Your task to perform on an android device: open wifi settings Image 0: 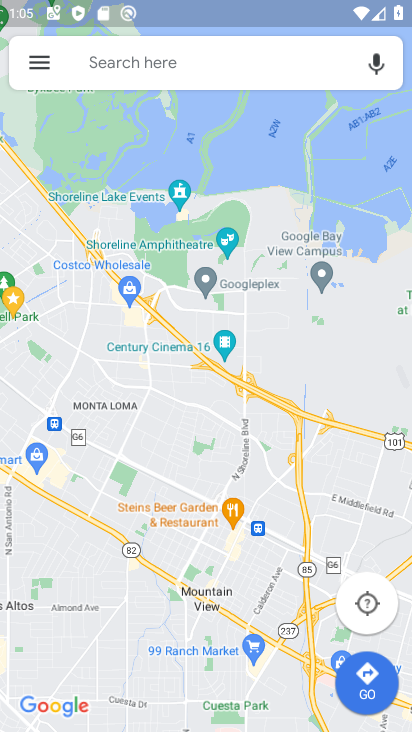
Step 0: press home button
Your task to perform on an android device: open wifi settings Image 1: 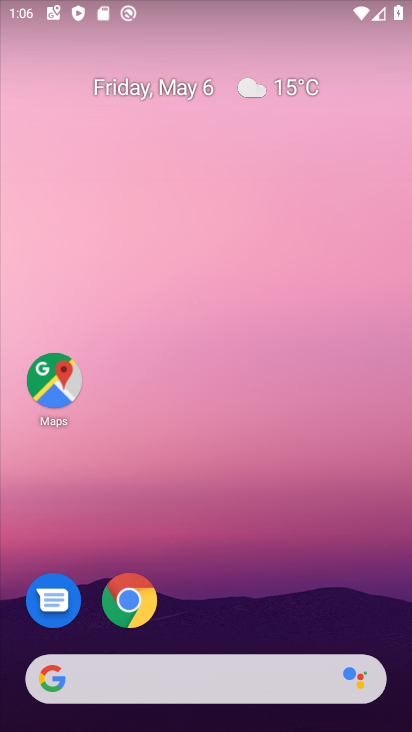
Step 1: drag from (329, 610) to (265, 78)
Your task to perform on an android device: open wifi settings Image 2: 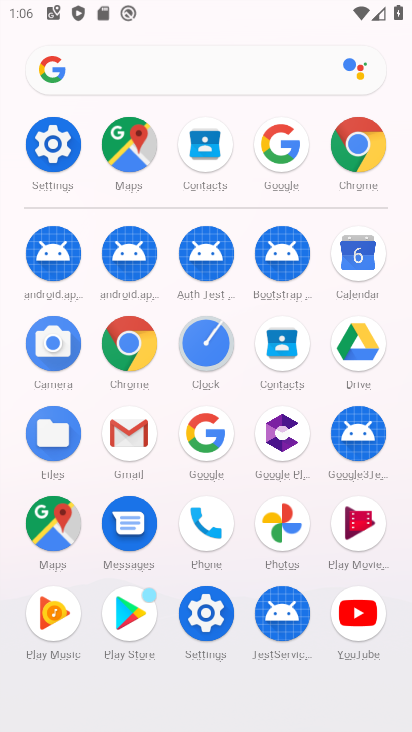
Step 2: click (208, 621)
Your task to perform on an android device: open wifi settings Image 3: 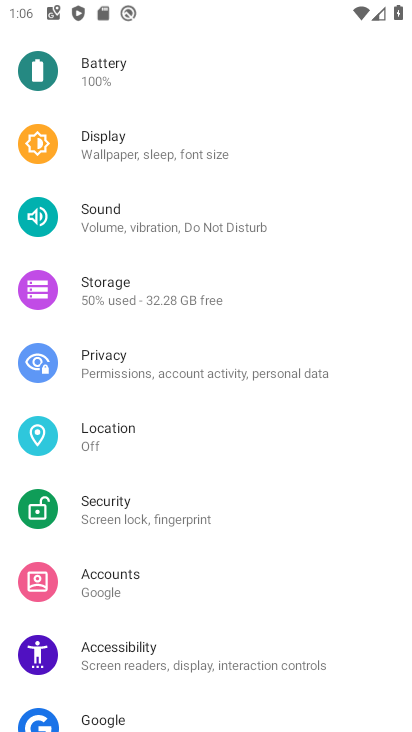
Step 3: drag from (208, 142) to (236, 622)
Your task to perform on an android device: open wifi settings Image 4: 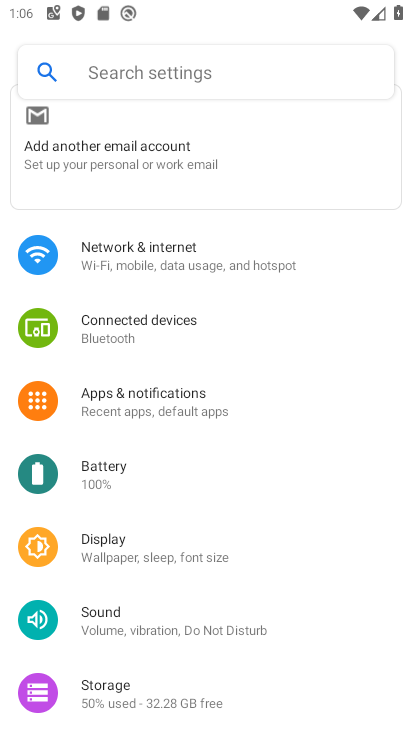
Step 4: click (116, 266)
Your task to perform on an android device: open wifi settings Image 5: 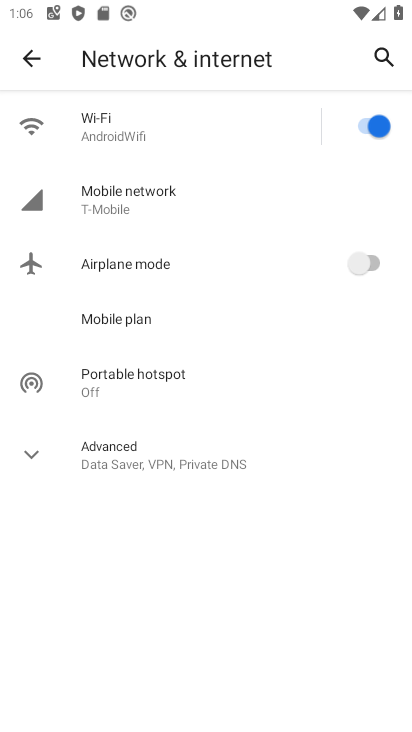
Step 5: click (129, 131)
Your task to perform on an android device: open wifi settings Image 6: 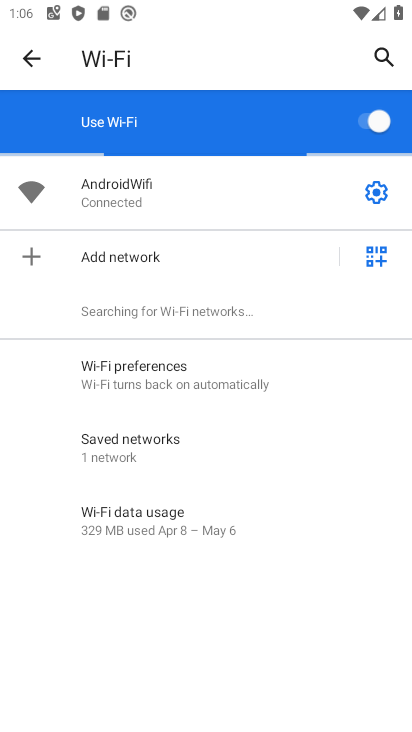
Step 6: task complete